Your task to perform on an android device: clear history in the chrome app Image 0: 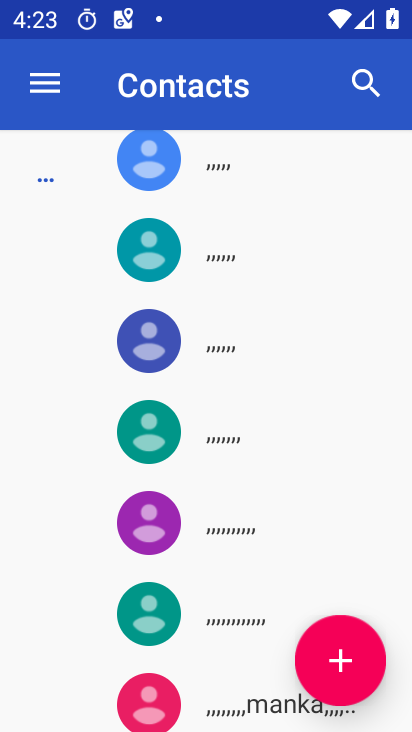
Step 0: press home button
Your task to perform on an android device: clear history in the chrome app Image 1: 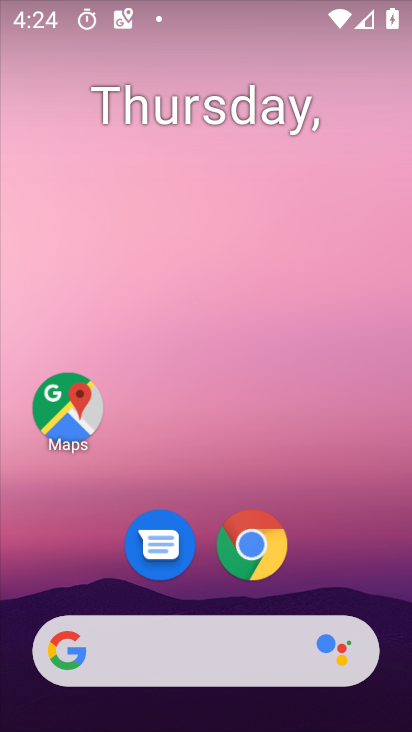
Step 1: click (258, 549)
Your task to perform on an android device: clear history in the chrome app Image 2: 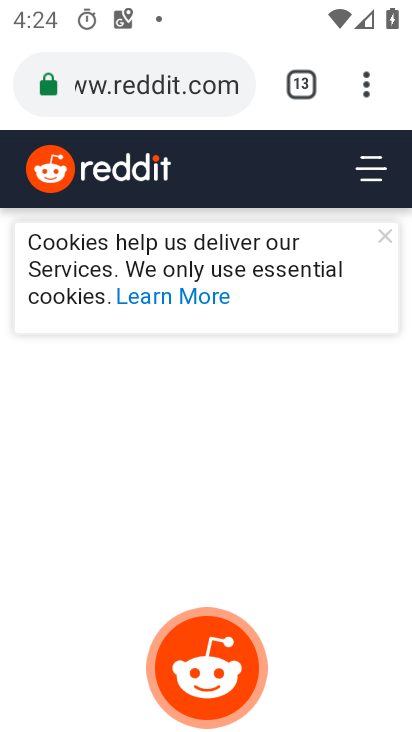
Step 2: click (366, 93)
Your task to perform on an android device: clear history in the chrome app Image 3: 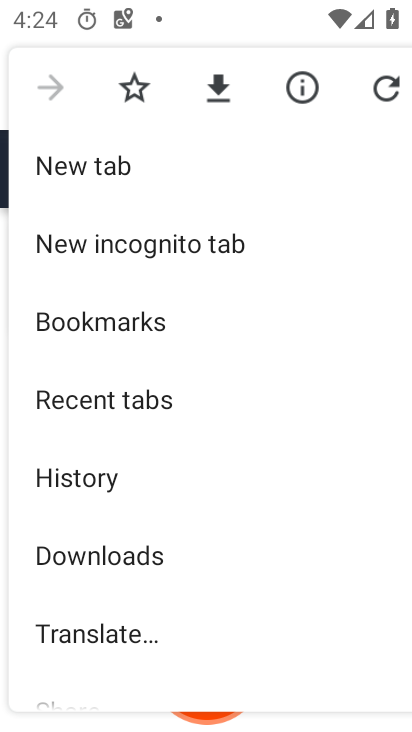
Step 3: click (71, 482)
Your task to perform on an android device: clear history in the chrome app Image 4: 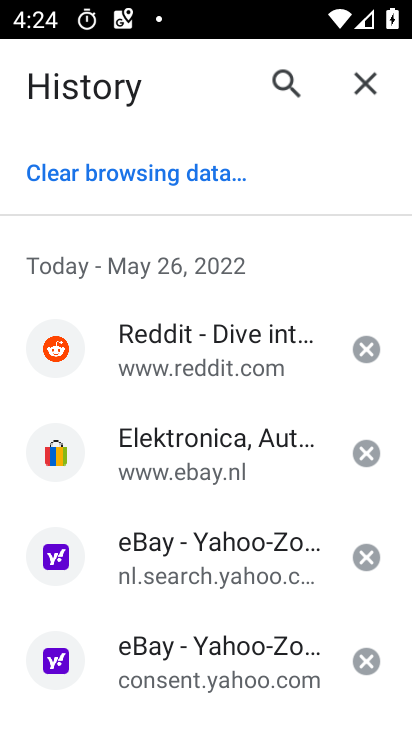
Step 4: click (132, 168)
Your task to perform on an android device: clear history in the chrome app Image 5: 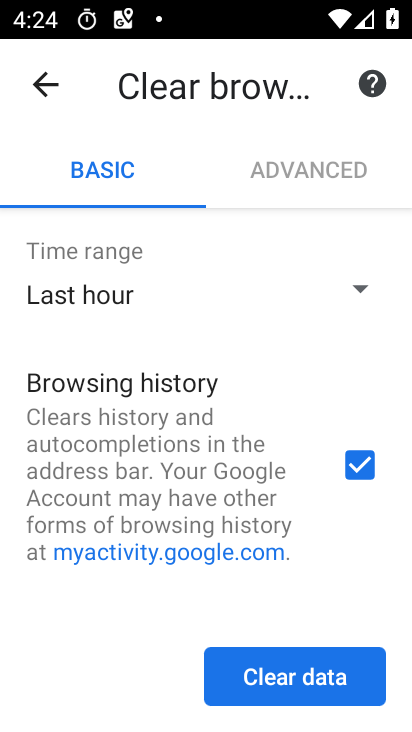
Step 5: drag from (313, 594) to (318, 356)
Your task to perform on an android device: clear history in the chrome app Image 6: 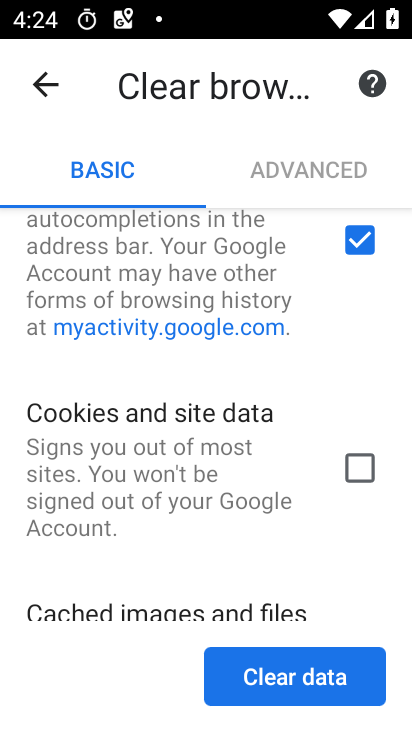
Step 6: click (284, 675)
Your task to perform on an android device: clear history in the chrome app Image 7: 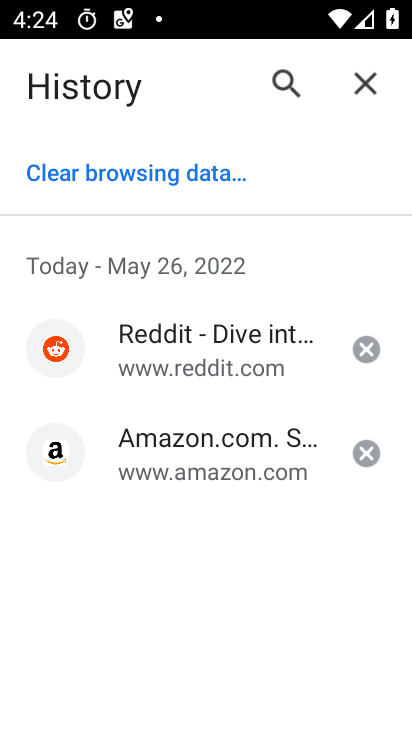
Step 7: task complete